Your task to perform on an android device: turn off javascript in the chrome app Image 0: 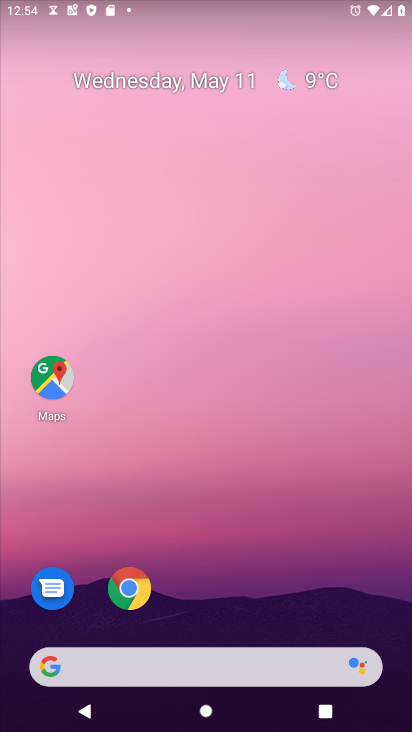
Step 0: click (134, 593)
Your task to perform on an android device: turn off javascript in the chrome app Image 1: 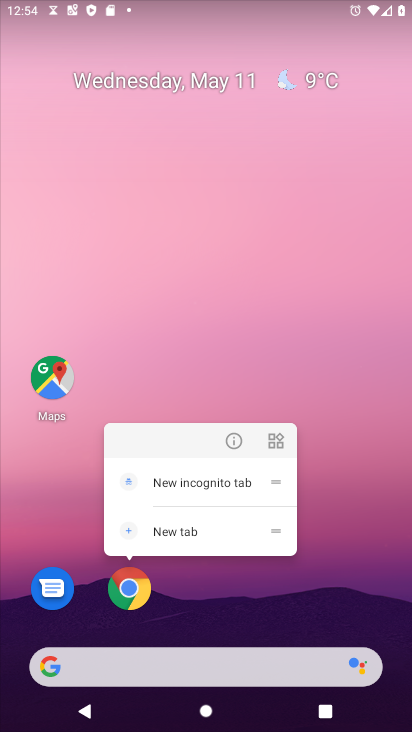
Step 1: click (134, 593)
Your task to perform on an android device: turn off javascript in the chrome app Image 2: 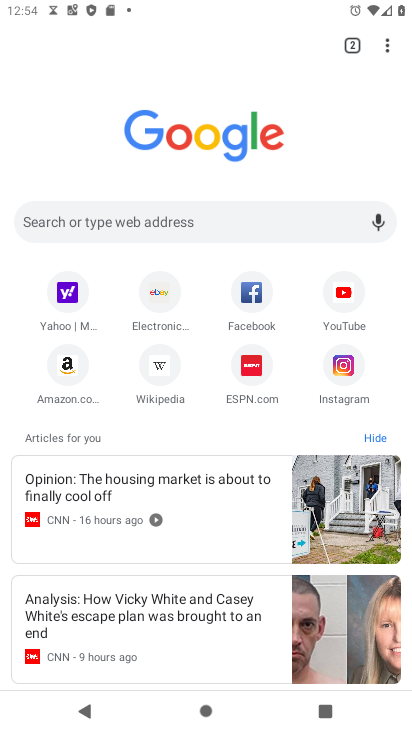
Step 2: drag from (385, 43) to (252, 378)
Your task to perform on an android device: turn off javascript in the chrome app Image 3: 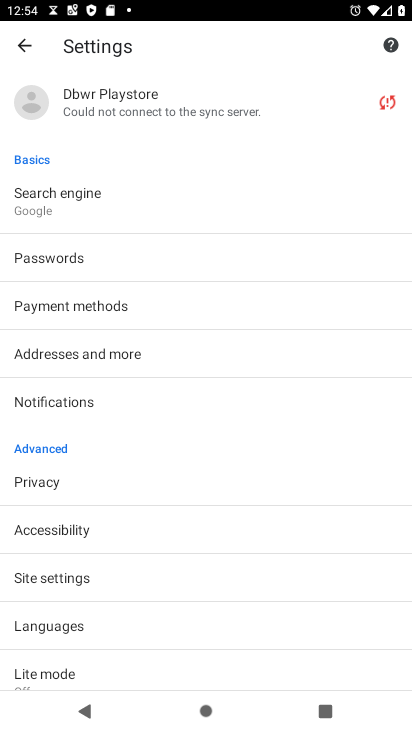
Step 3: click (84, 585)
Your task to perform on an android device: turn off javascript in the chrome app Image 4: 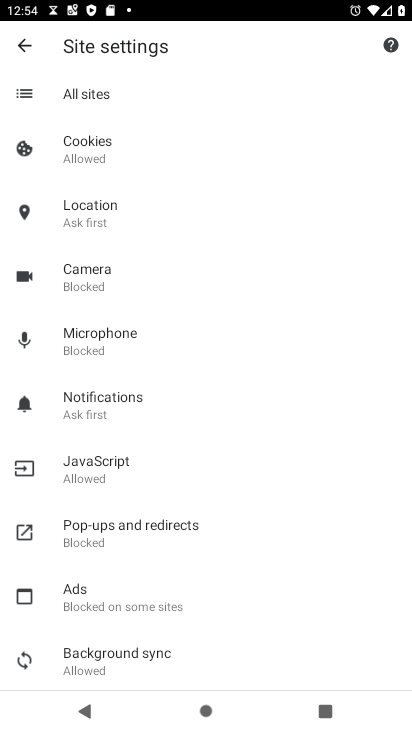
Step 4: click (98, 467)
Your task to perform on an android device: turn off javascript in the chrome app Image 5: 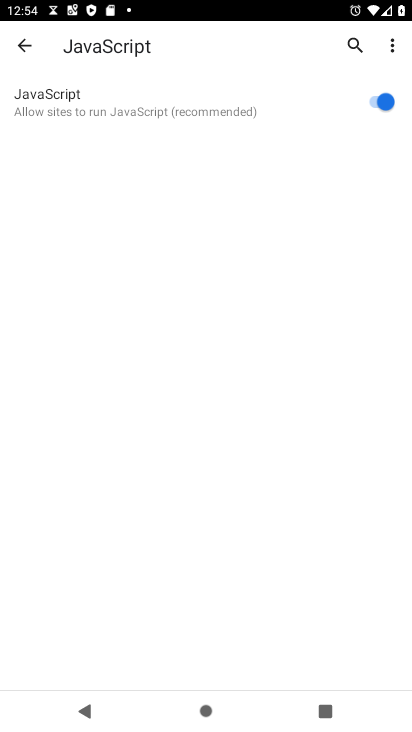
Step 5: click (377, 99)
Your task to perform on an android device: turn off javascript in the chrome app Image 6: 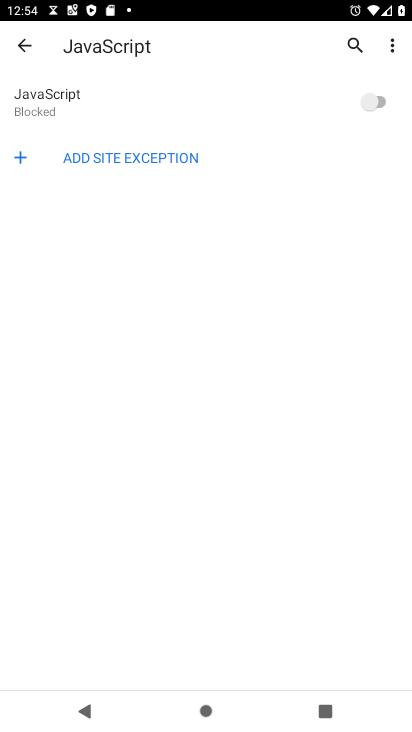
Step 6: task complete